Your task to perform on an android device: Open a new window in the chrome app Image 0: 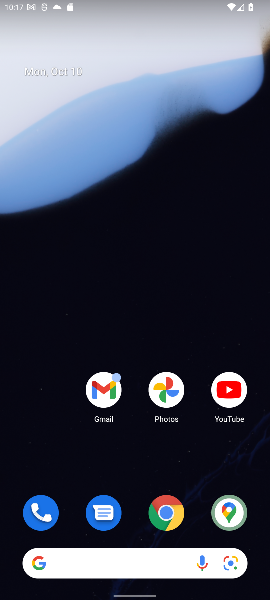
Step 0: click (151, 563)
Your task to perform on an android device: Open a new window in the chrome app Image 1: 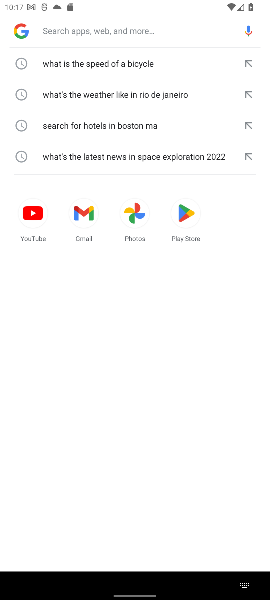
Step 1: press back button
Your task to perform on an android device: Open a new window in the chrome app Image 2: 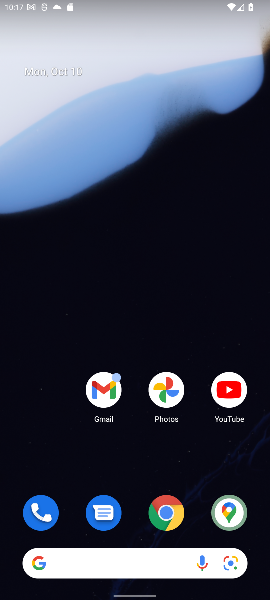
Step 2: press back button
Your task to perform on an android device: Open a new window in the chrome app Image 3: 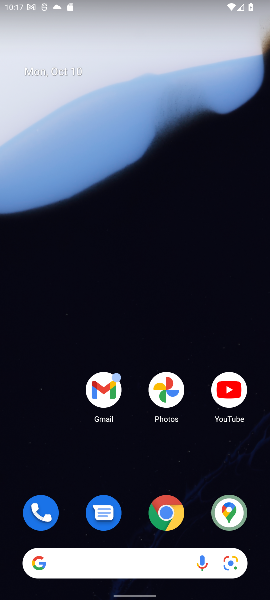
Step 3: click (163, 515)
Your task to perform on an android device: Open a new window in the chrome app Image 4: 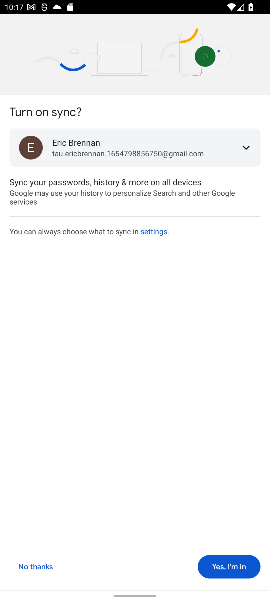
Step 4: click (33, 564)
Your task to perform on an android device: Open a new window in the chrome app Image 5: 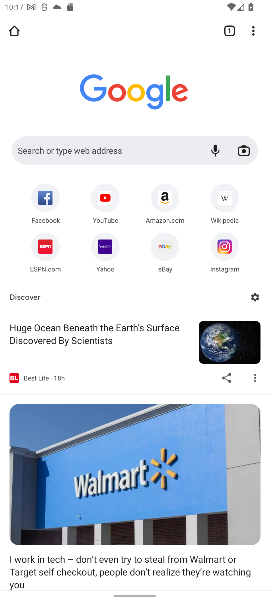
Step 5: click (252, 29)
Your task to perform on an android device: Open a new window in the chrome app Image 6: 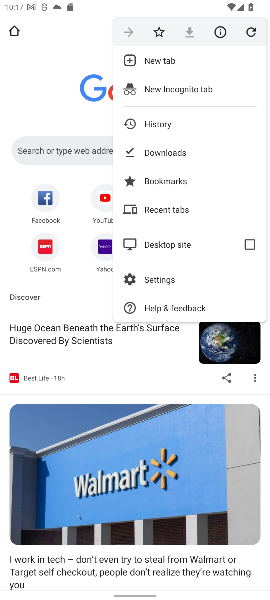
Step 6: click (150, 60)
Your task to perform on an android device: Open a new window in the chrome app Image 7: 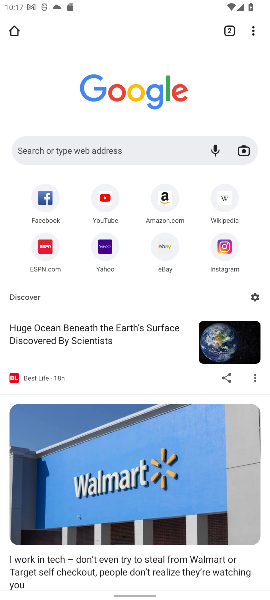
Step 7: task complete